Your task to perform on an android device: Clear all items from cart on costco.com. Search for "duracell triple a" on costco.com, select the first entry, and add it to the cart. Image 0: 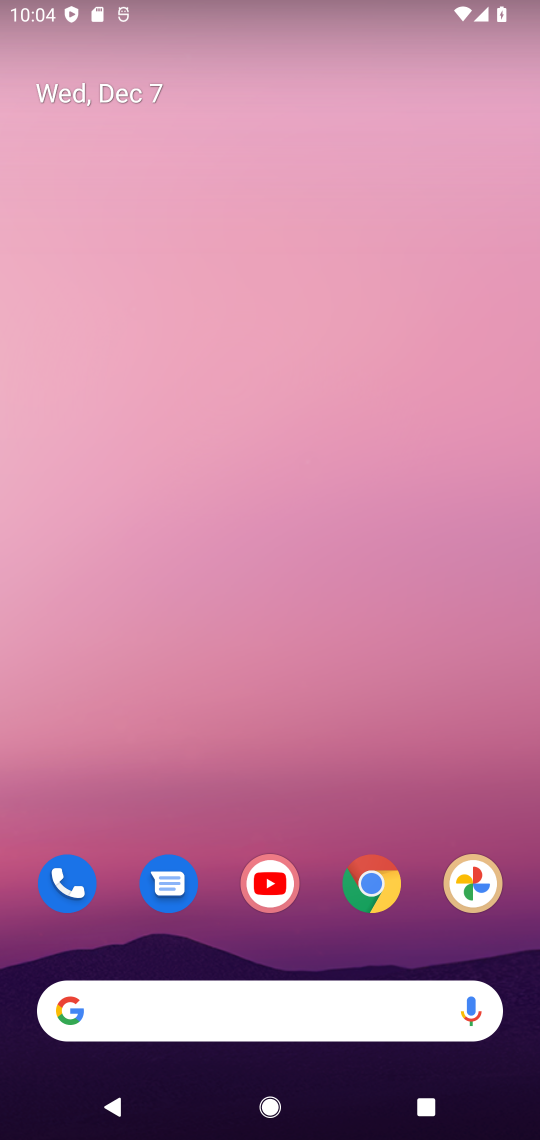
Step 0: drag from (281, 824) to (264, 170)
Your task to perform on an android device: Clear all items from cart on costco.com. Search for "duracell triple a" on costco.com, select the first entry, and add it to the cart. Image 1: 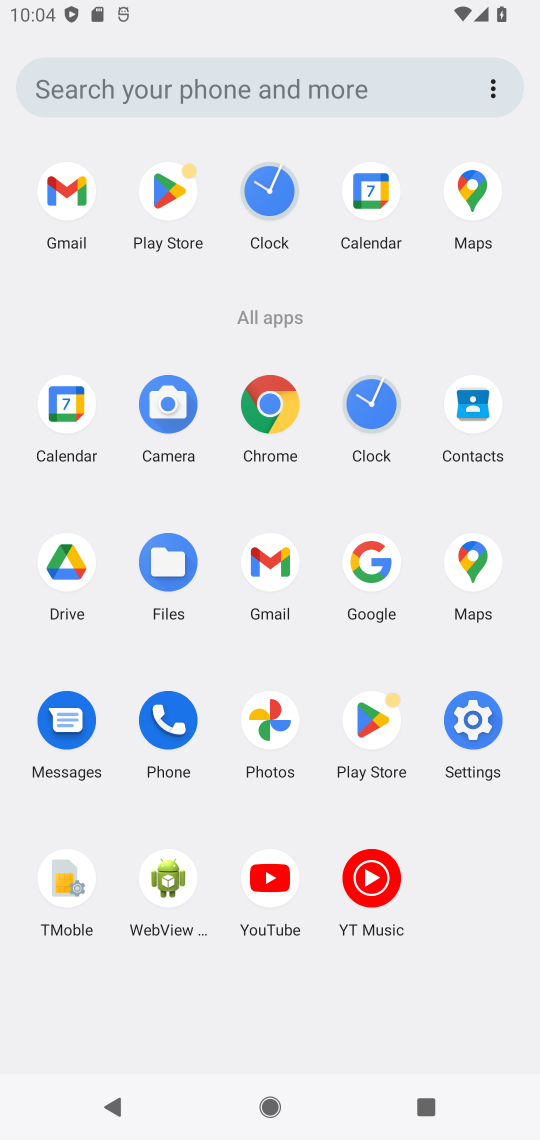
Step 1: click (365, 569)
Your task to perform on an android device: Clear all items from cart on costco.com. Search for "duracell triple a" on costco.com, select the first entry, and add it to the cart. Image 2: 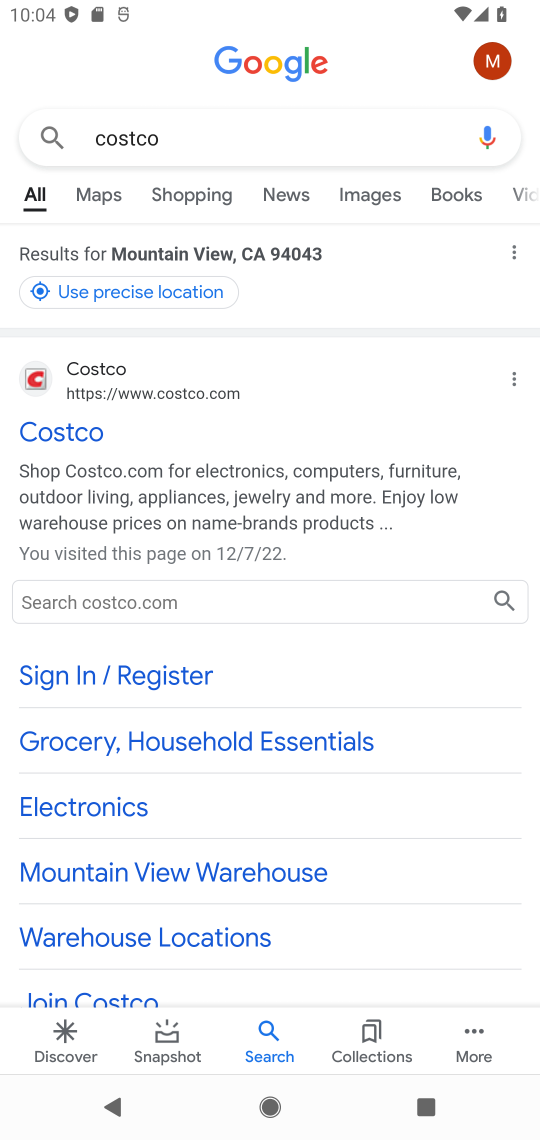
Step 2: click (164, 145)
Your task to perform on an android device: Clear all items from cart on costco.com. Search for "duracell triple a" on costco.com, select the first entry, and add it to the cart. Image 3: 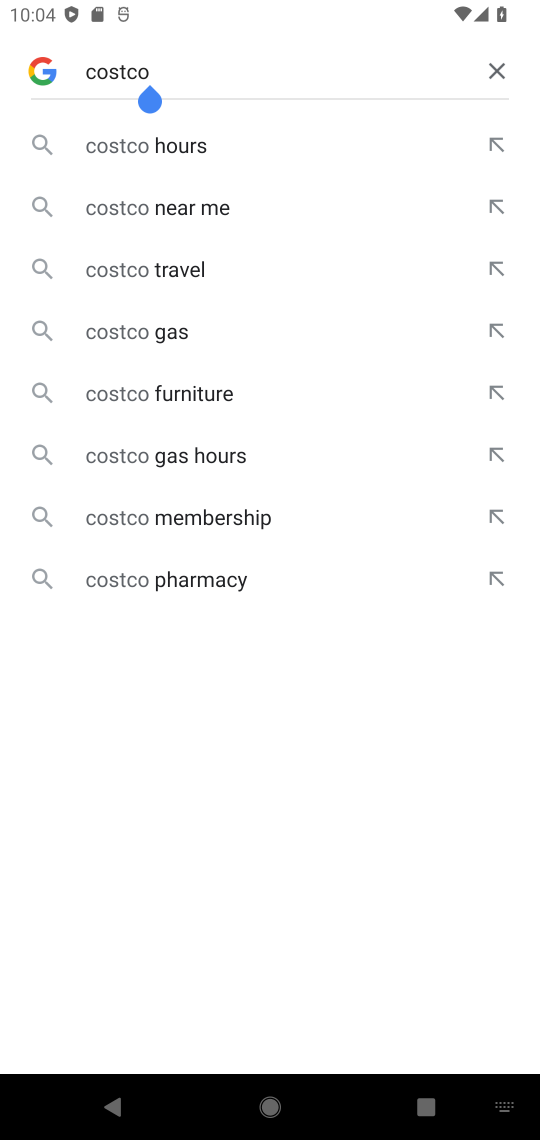
Step 3: click (503, 61)
Your task to perform on an android device: Clear all items from cart on costco.com. Search for "duracell triple a" on costco.com, select the first entry, and add it to the cart. Image 4: 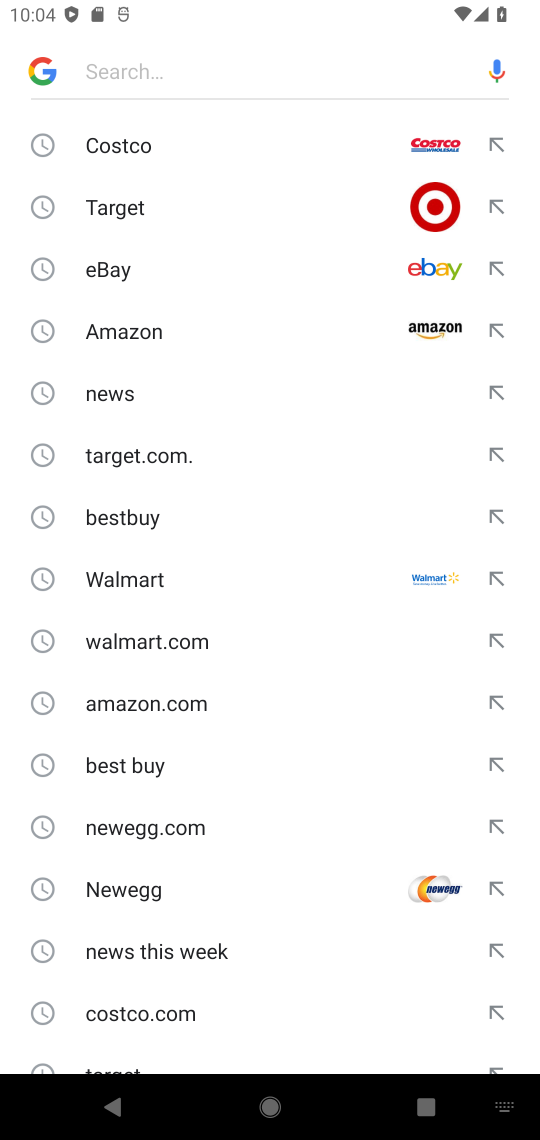
Step 4: click (107, 144)
Your task to perform on an android device: Clear all items from cart on costco.com. Search for "duracell triple a" on costco.com, select the first entry, and add it to the cart. Image 5: 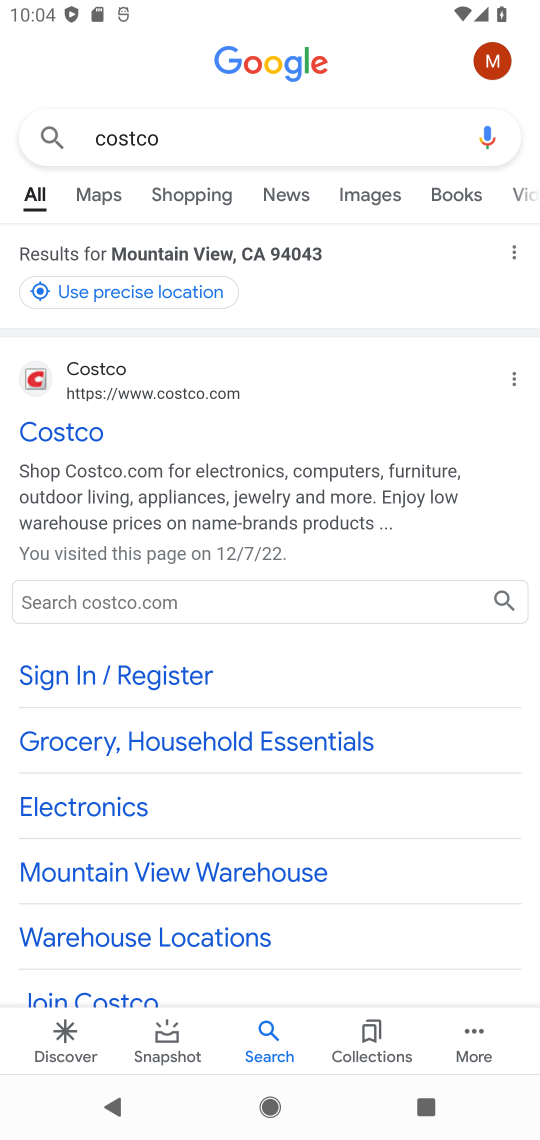
Step 5: click (98, 439)
Your task to perform on an android device: Clear all items from cart on costco.com. Search for "duracell triple a" on costco.com, select the first entry, and add it to the cart. Image 6: 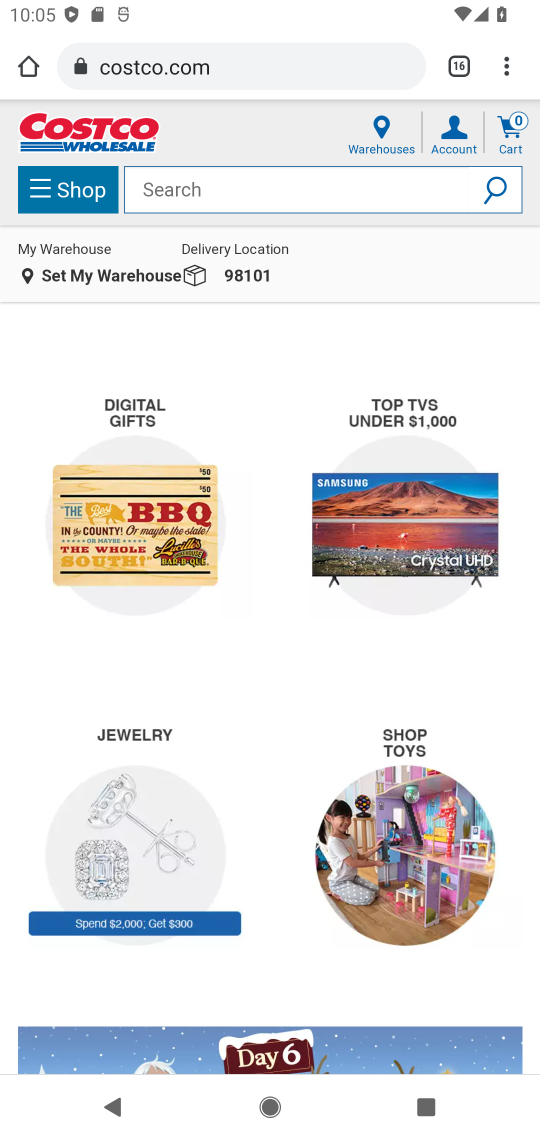
Step 6: click (509, 121)
Your task to perform on an android device: Clear all items from cart on costco.com. Search for "duracell triple a" on costco.com, select the first entry, and add it to the cart. Image 7: 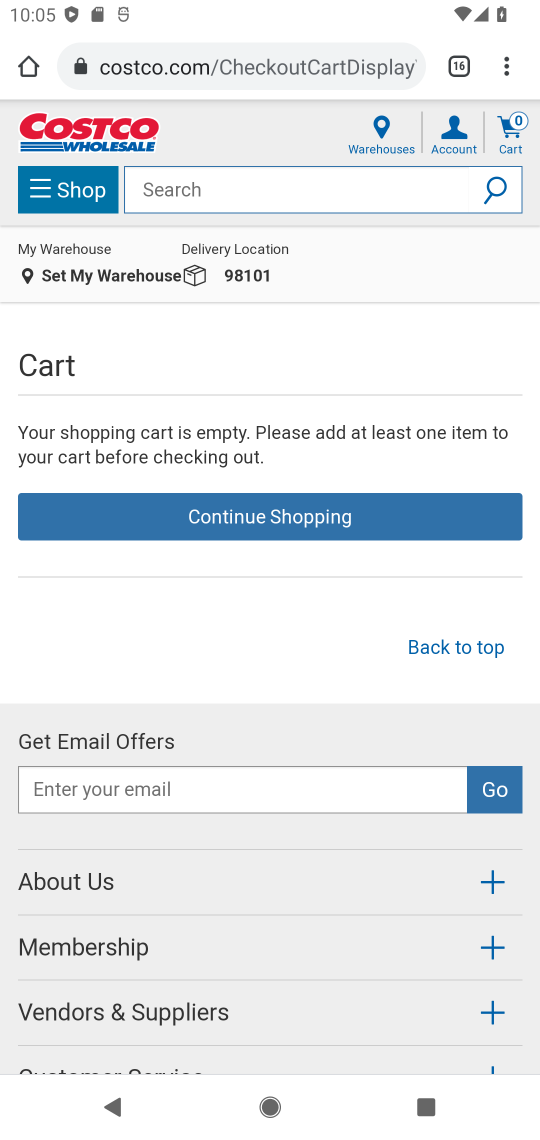
Step 7: click (281, 185)
Your task to perform on an android device: Clear all items from cart on costco.com. Search for "duracell triple a" on costco.com, select the first entry, and add it to the cart. Image 8: 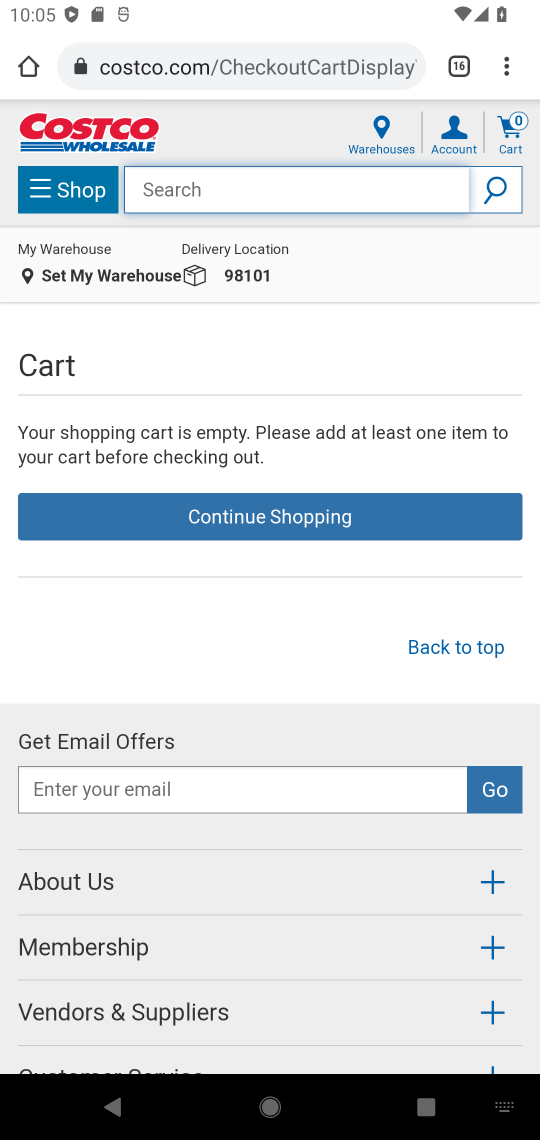
Step 8: type "duracell triple a"
Your task to perform on an android device: Clear all items from cart on costco.com. Search for "duracell triple a" on costco.com, select the first entry, and add it to the cart. Image 9: 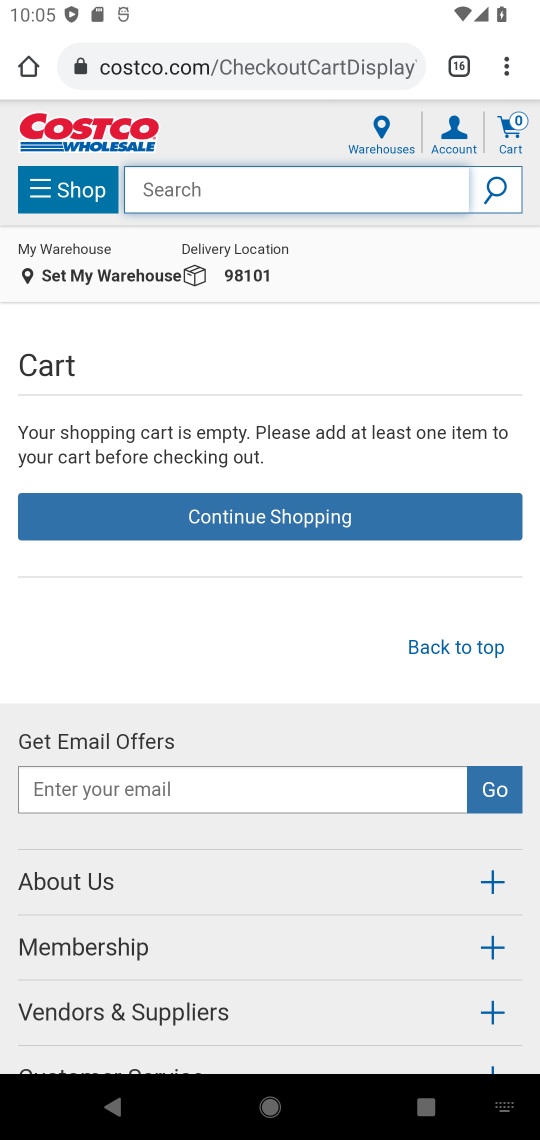
Step 9: click (494, 193)
Your task to perform on an android device: Clear all items from cart on costco.com. Search for "duracell triple a" on costco.com, select the first entry, and add it to the cart. Image 10: 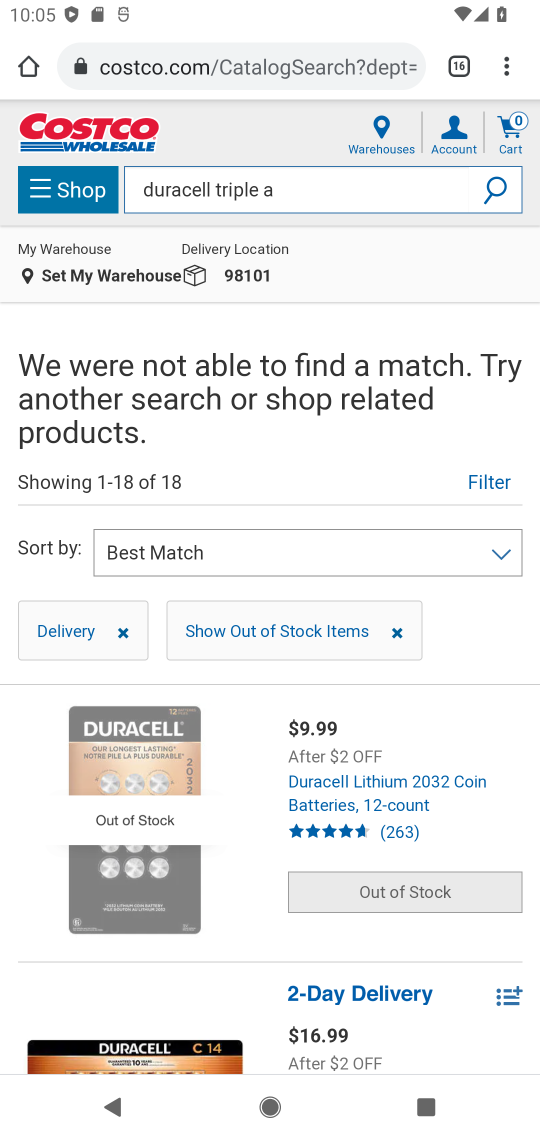
Step 10: click (304, 770)
Your task to perform on an android device: Clear all items from cart on costco.com. Search for "duracell triple a" on costco.com, select the first entry, and add it to the cart. Image 11: 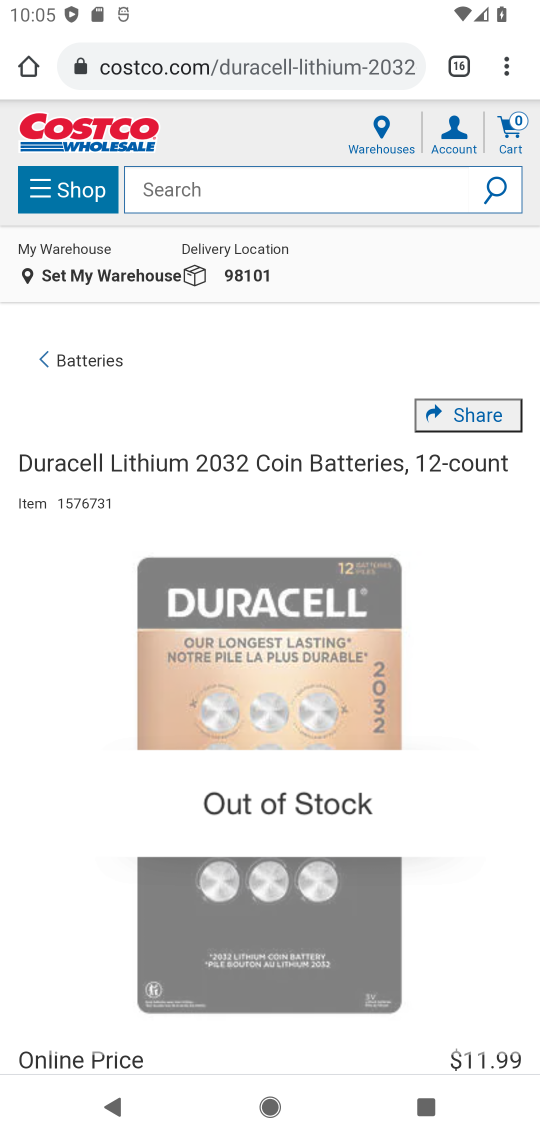
Step 11: task complete